Your task to perform on an android device: Open location settings Image 0: 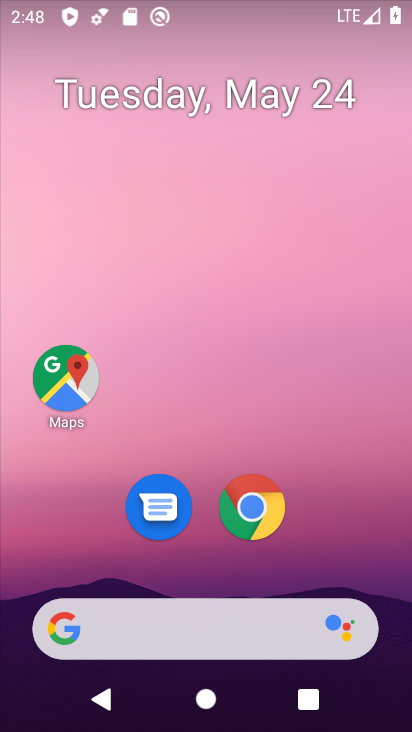
Step 0: drag from (214, 541) to (297, 78)
Your task to perform on an android device: Open location settings Image 1: 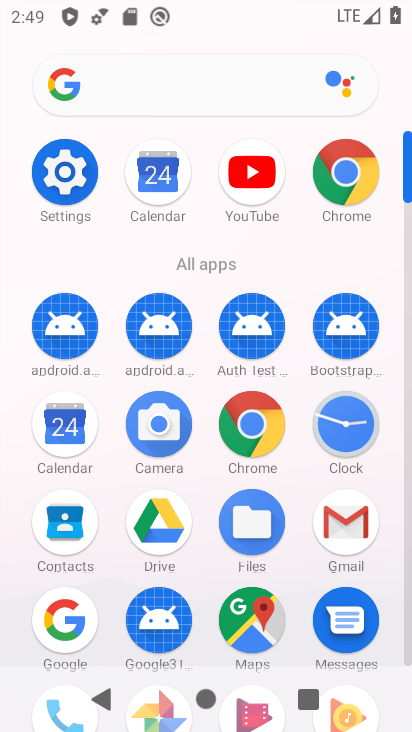
Step 1: click (62, 171)
Your task to perform on an android device: Open location settings Image 2: 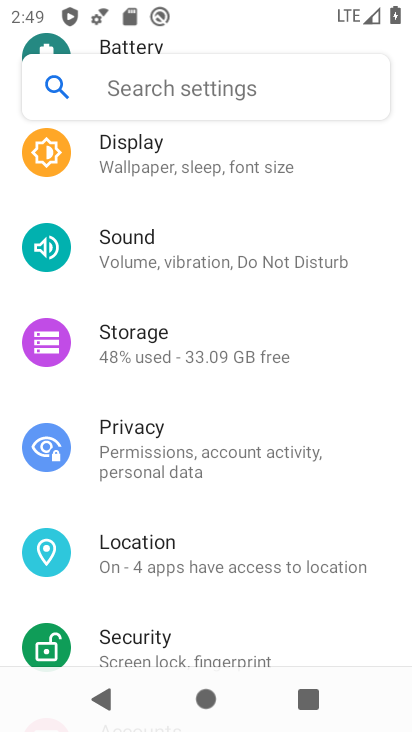
Step 2: click (155, 545)
Your task to perform on an android device: Open location settings Image 3: 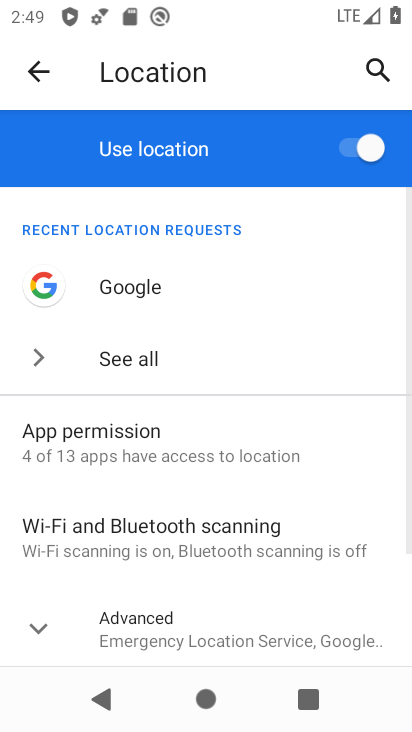
Step 3: task complete